Your task to perform on an android device: add a label to a message in the gmail app Image 0: 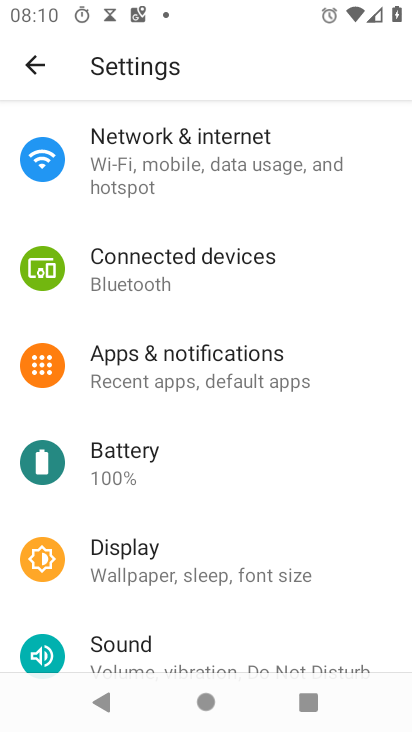
Step 0: press home button
Your task to perform on an android device: add a label to a message in the gmail app Image 1: 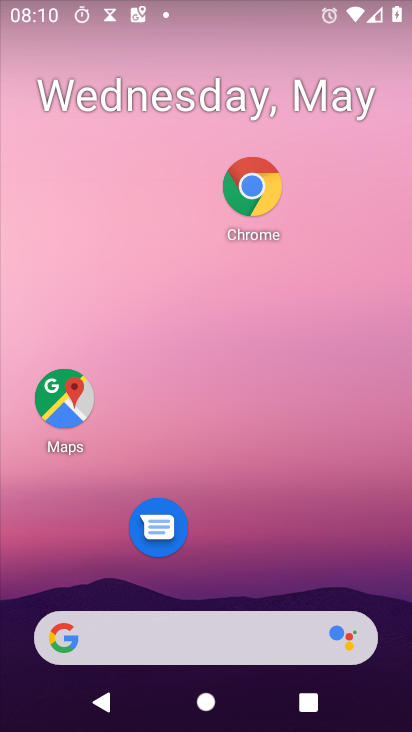
Step 1: drag from (298, 515) to (316, 119)
Your task to perform on an android device: add a label to a message in the gmail app Image 2: 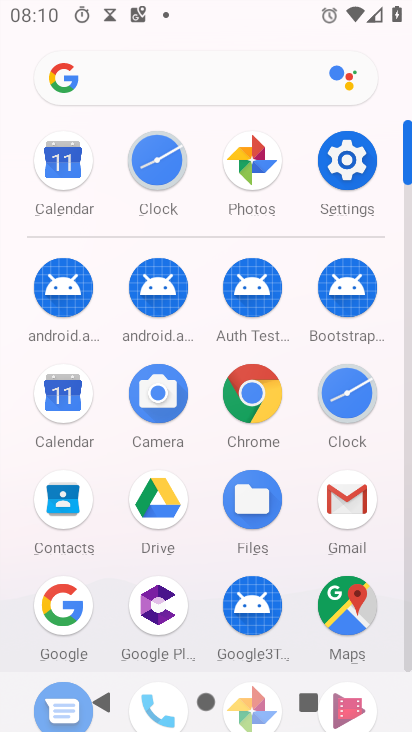
Step 2: click (342, 498)
Your task to perform on an android device: add a label to a message in the gmail app Image 3: 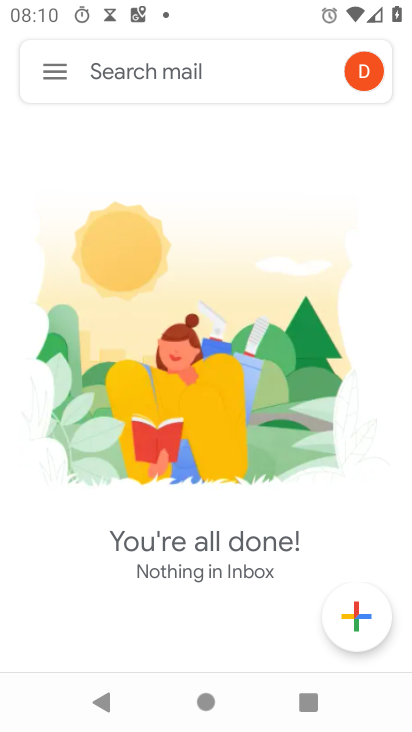
Step 3: task complete